Your task to perform on an android device: open a bookmark in the chrome app Image 0: 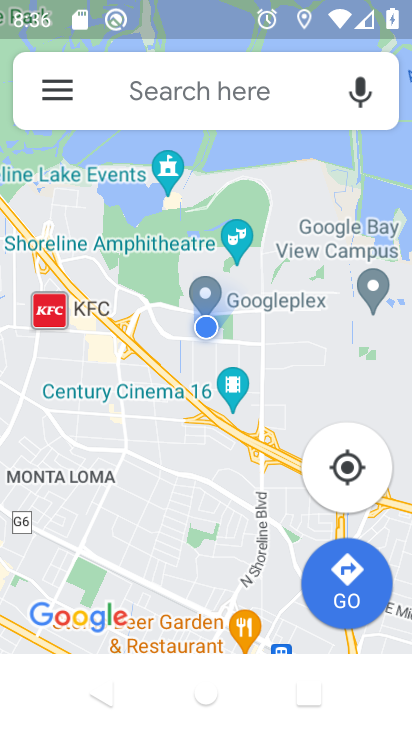
Step 0: press home button
Your task to perform on an android device: open a bookmark in the chrome app Image 1: 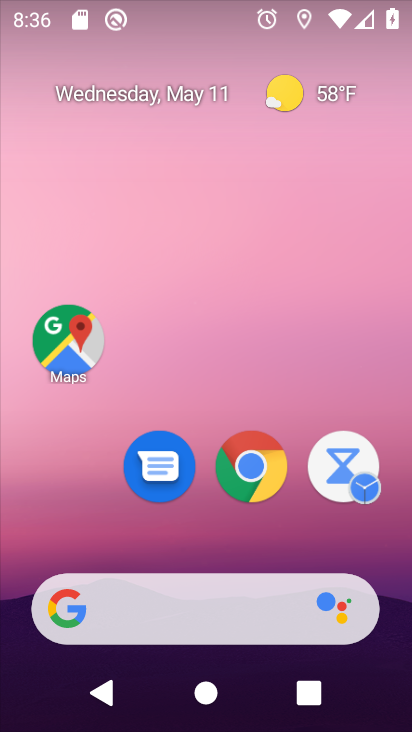
Step 1: click (223, 471)
Your task to perform on an android device: open a bookmark in the chrome app Image 2: 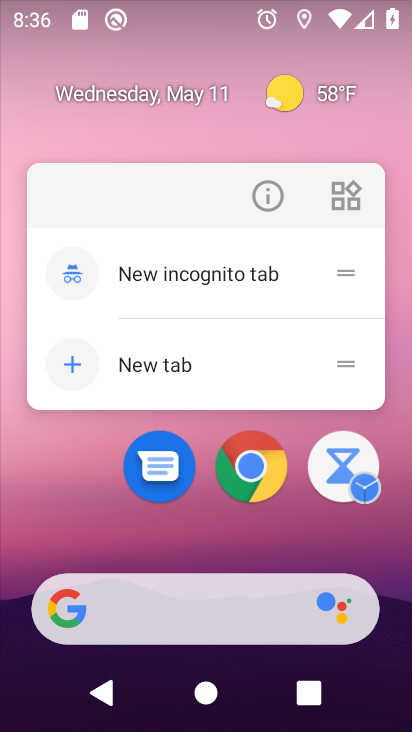
Step 2: click (224, 471)
Your task to perform on an android device: open a bookmark in the chrome app Image 3: 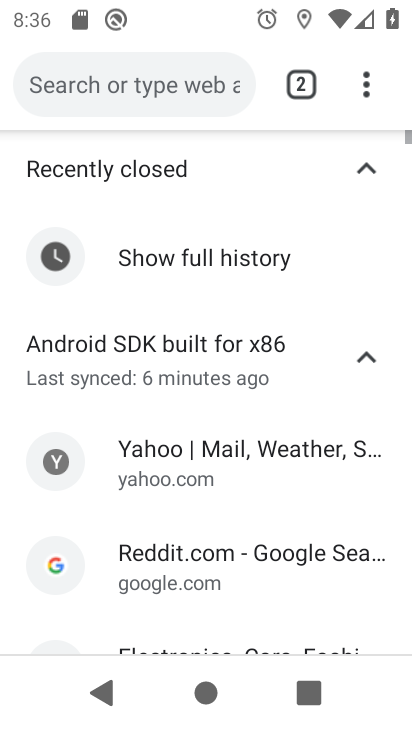
Step 3: click (359, 78)
Your task to perform on an android device: open a bookmark in the chrome app Image 4: 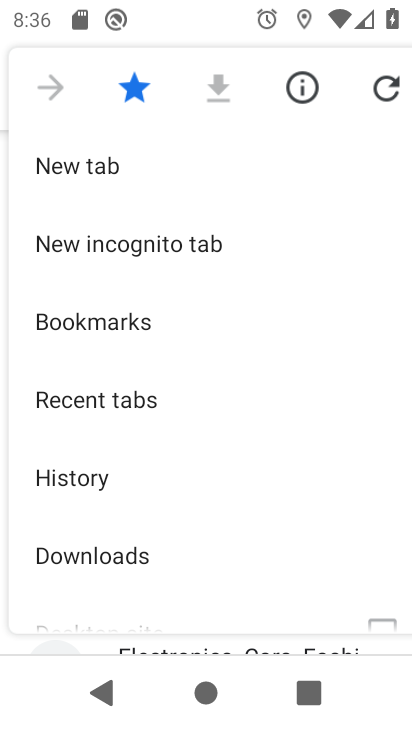
Step 4: click (135, 334)
Your task to perform on an android device: open a bookmark in the chrome app Image 5: 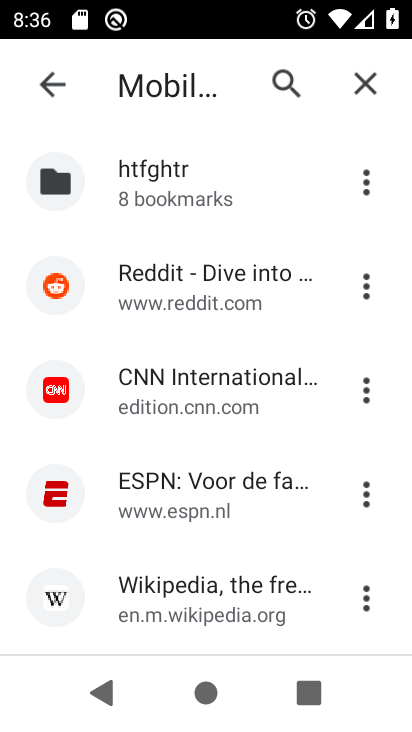
Step 5: click (117, 478)
Your task to perform on an android device: open a bookmark in the chrome app Image 6: 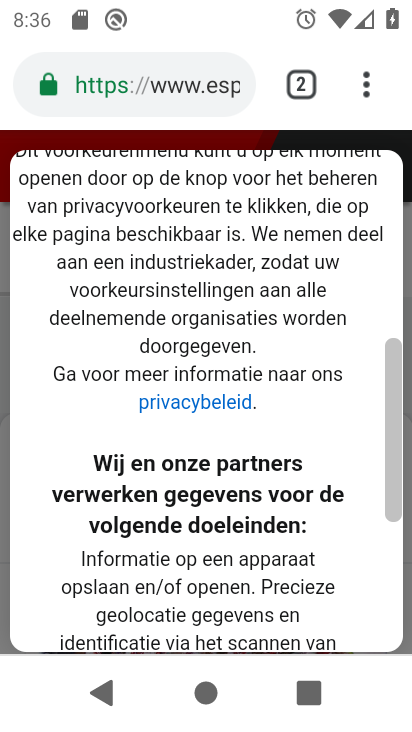
Step 6: task complete